Your task to perform on an android device: see creations saved in the google photos Image 0: 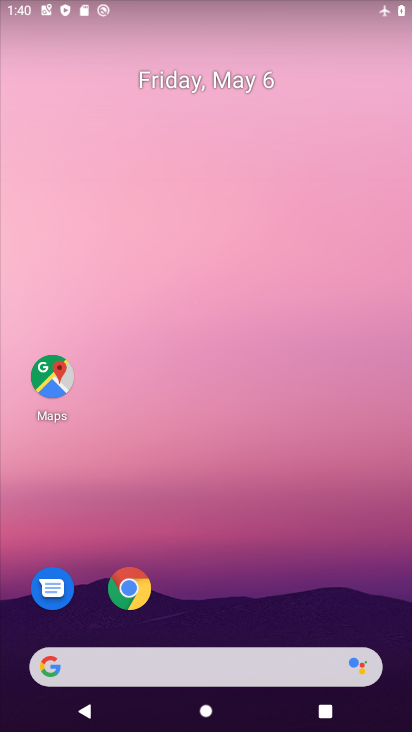
Step 0: drag from (367, 586) to (342, 147)
Your task to perform on an android device: see creations saved in the google photos Image 1: 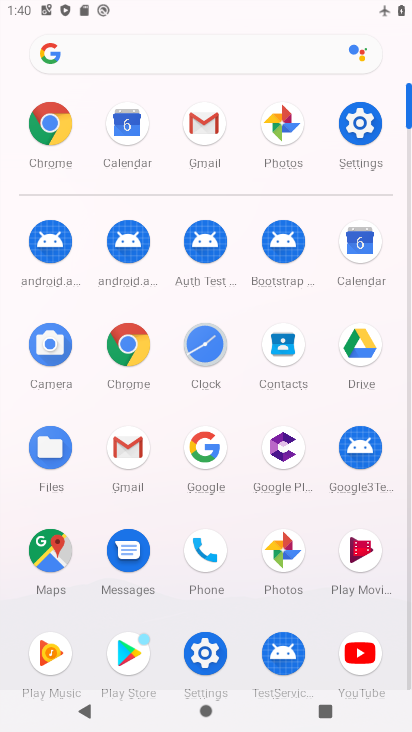
Step 1: click (286, 570)
Your task to perform on an android device: see creations saved in the google photos Image 2: 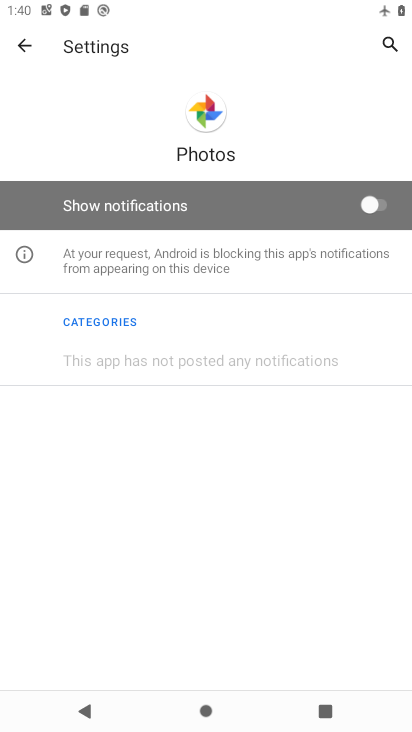
Step 2: click (17, 41)
Your task to perform on an android device: see creations saved in the google photos Image 3: 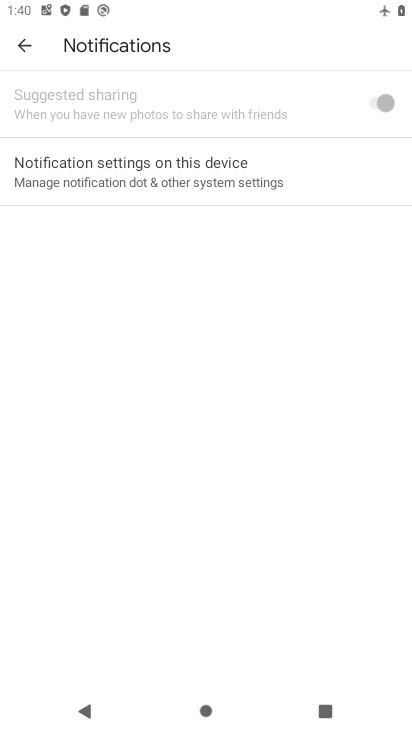
Step 3: click (18, 41)
Your task to perform on an android device: see creations saved in the google photos Image 4: 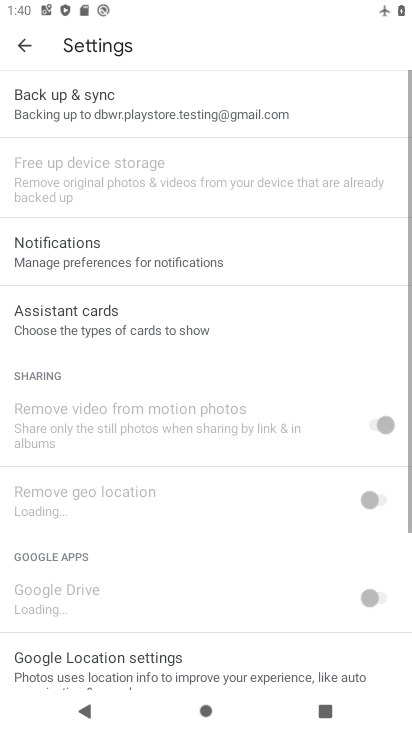
Step 4: click (18, 41)
Your task to perform on an android device: see creations saved in the google photos Image 5: 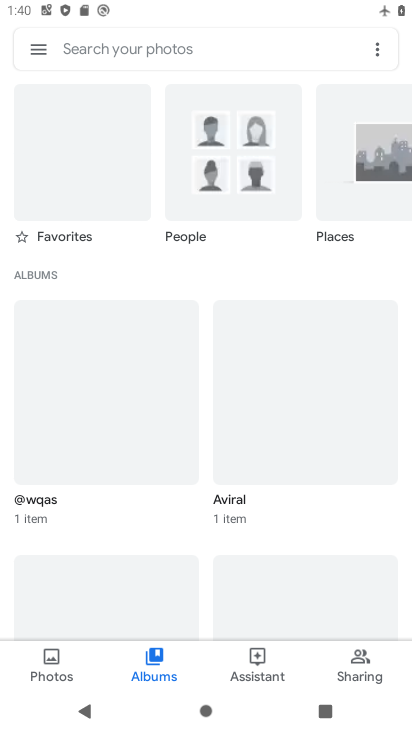
Step 5: click (130, 52)
Your task to perform on an android device: see creations saved in the google photos Image 6: 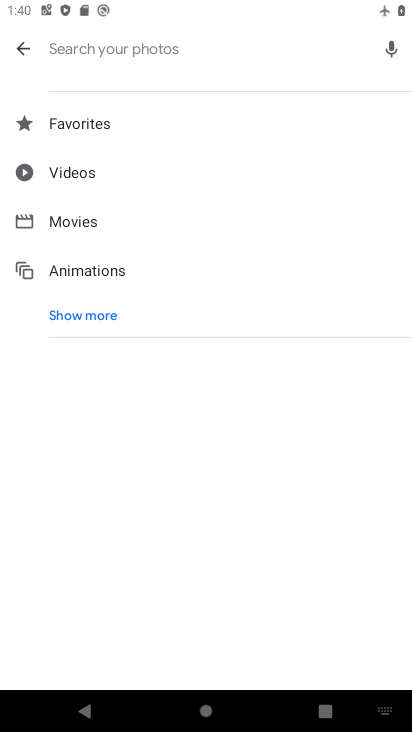
Step 6: type "creations"
Your task to perform on an android device: see creations saved in the google photos Image 7: 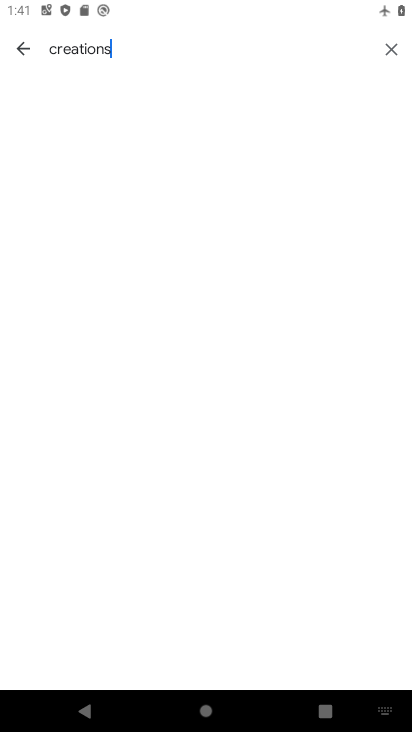
Step 7: click (122, 52)
Your task to perform on an android device: see creations saved in the google photos Image 8: 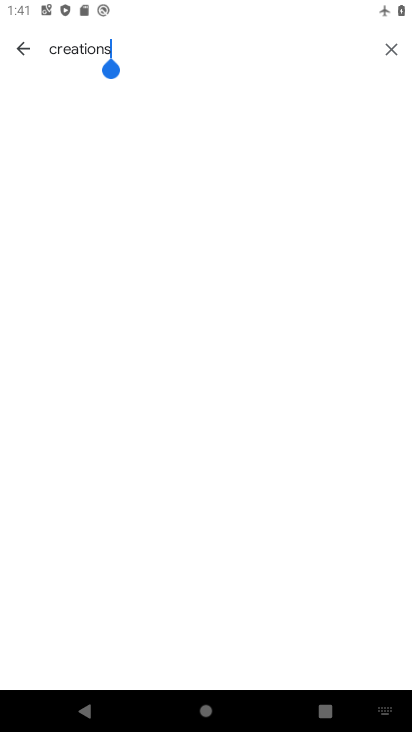
Step 8: task complete